Your task to perform on an android device: Check the settings for the Instagram app Image 0: 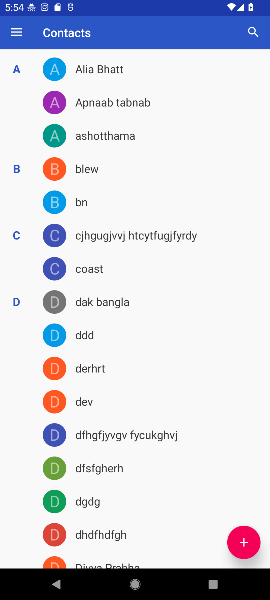
Step 0: press home button
Your task to perform on an android device: Check the settings for the Instagram app Image 1: 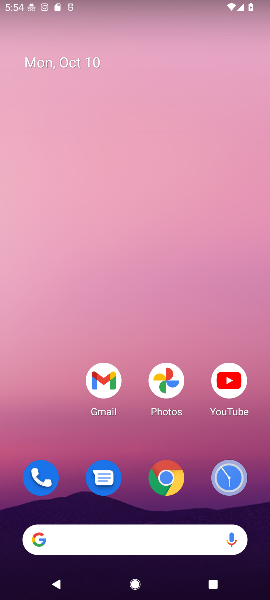
Step 1: drag from (138, 496) to (120, 64)
Your task to perform on an android device: Check the settings for the Instagram app Image 2: 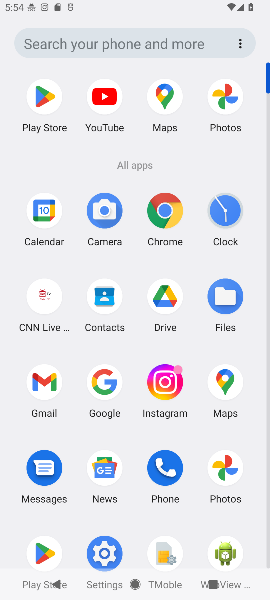
Step 2: click (159, 384)
Your task to perform on an android device: Check the settings for the Instagram app Image 3: 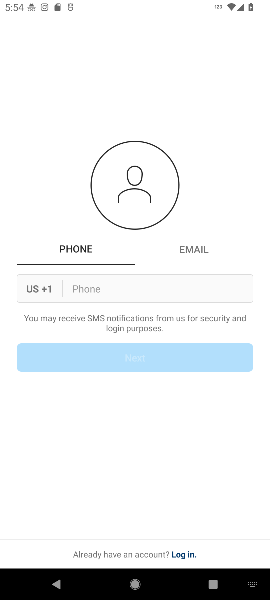
Step 3: task complete